Your task to perform on an android device: turn off wifi Image 0: 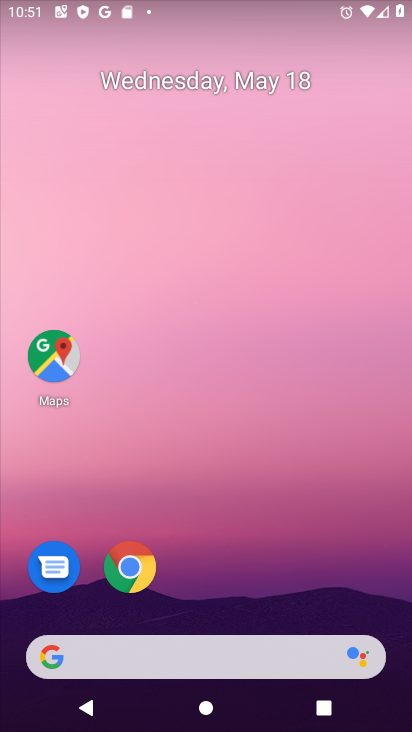
Step 0: drag from (244, 648) to (186, 0)
Your task to perform on an android device: turn off wifi Image 1: 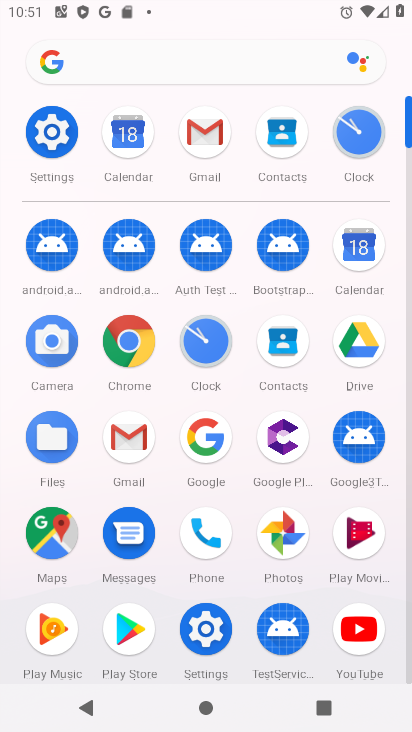
Step 1: click (48, 152)
Your task to perform on an android device: turn off wifi Image 2: 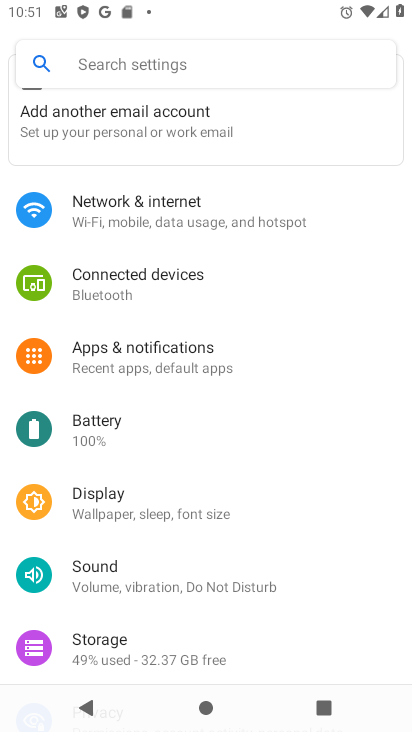
Step 2: click (139, 216)
Your task to perform on an android device: turn off wifi Image 3: 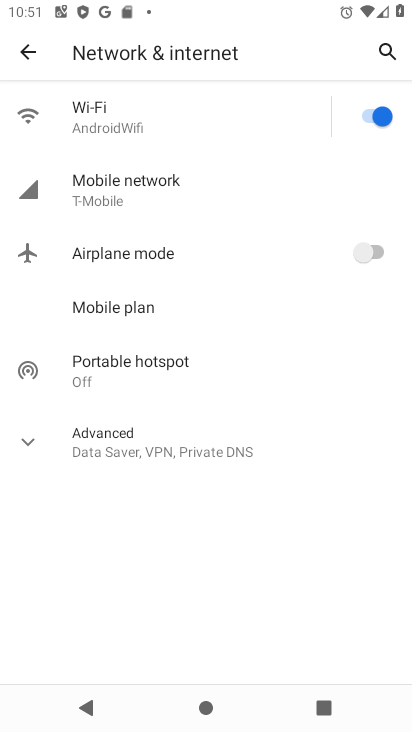
Step 3: click (373, 113)
Your task to perform on an android device: turn off wifi Image 4: 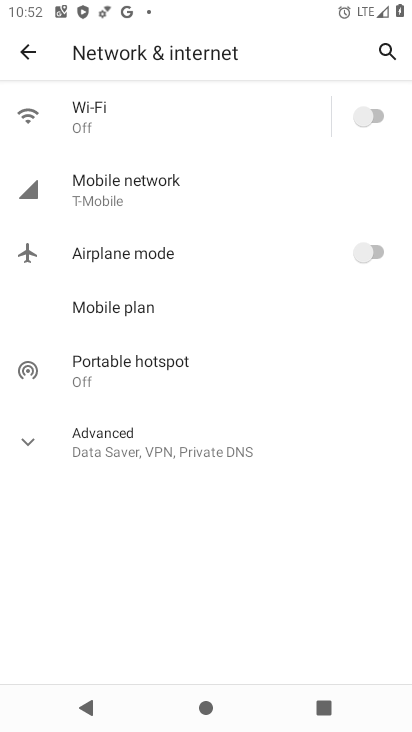
Step 4: task complete